Your task to perform on an android device: turn pop-ups off in chrome Image 0: 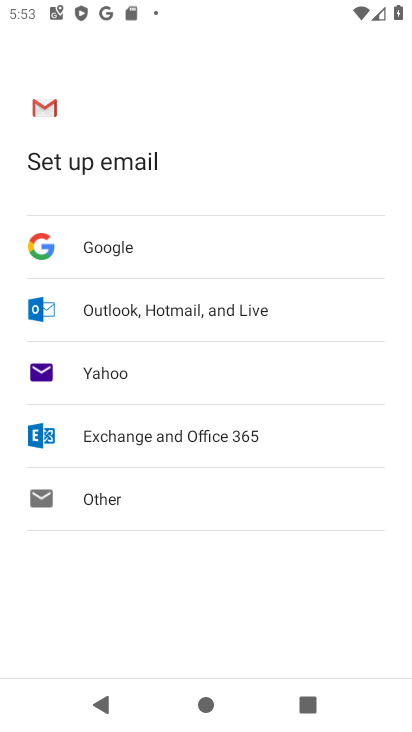
Step 0: press home button
Your task to perform on an android device: turn pop-ups off in chrome Image 1: 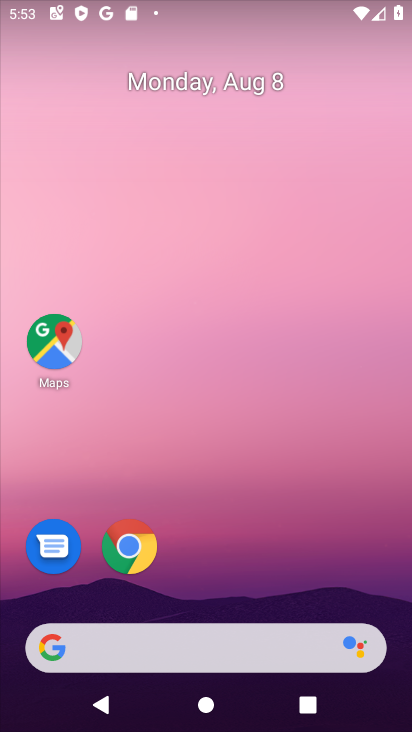
Step 1: click (124, 565)
Your task to perform on an android device: turn pop-ups off in chrome Image 2: 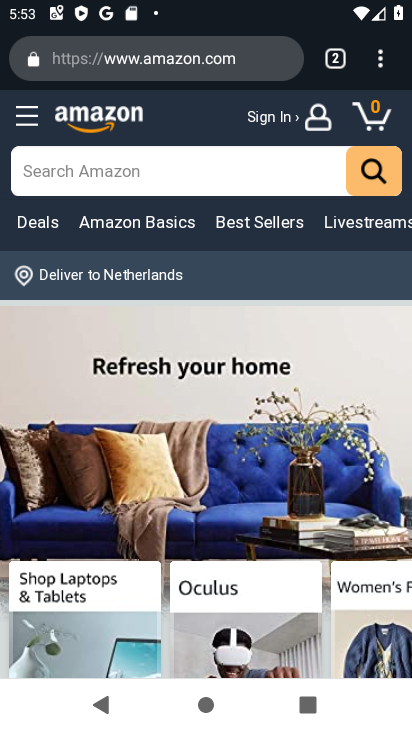
Step 2: click (374, 60)
Your task to perform on an android device: turn pop-ups off in chrome Image 3: 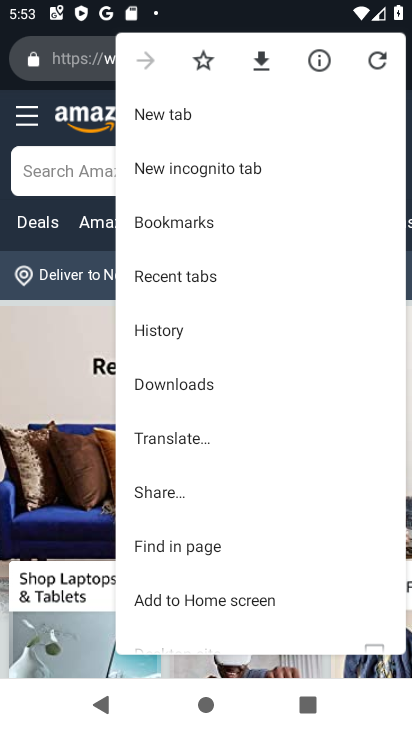
Step 3: drag from (208, 466) to (237, 258)
Your task to perform on an android device: turn pop-ups off in chrome Image 4: 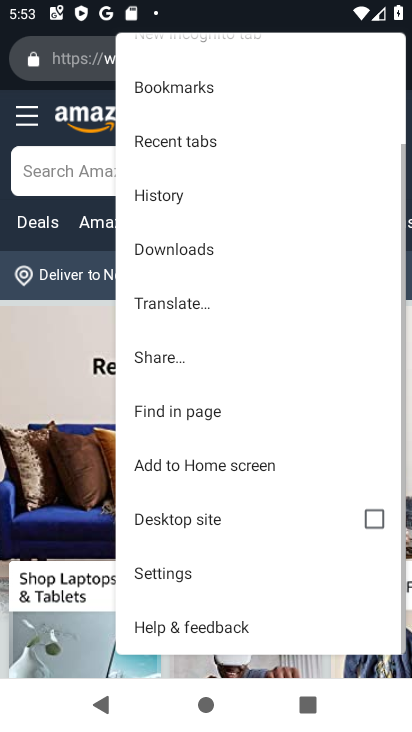
Step 4: click (168, 561)
Your task to perform on an android device: turn pop-ups off in chrome Image 5: 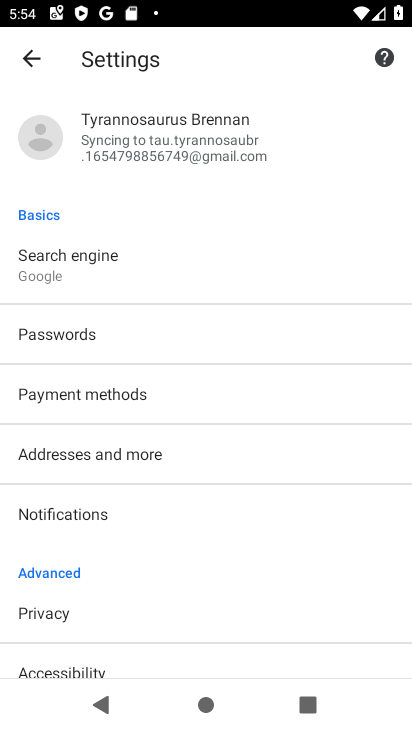
Step 5: drag from (152, 564) to (194, 232)
Your task to perform on an android device: turn pop-ups off in chrome Image 6: 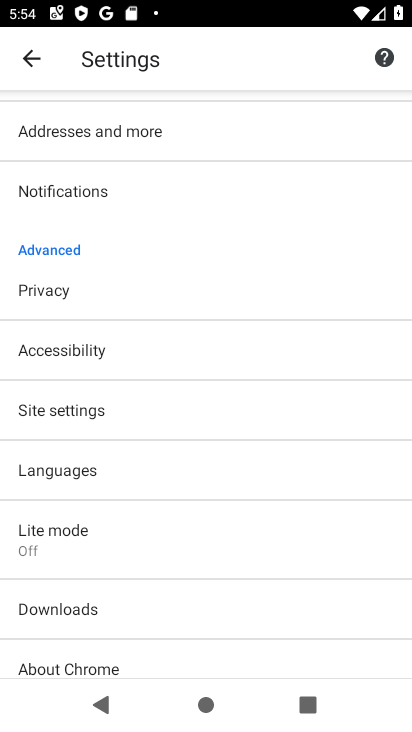
Step 6: click (138, 404)
Your task to perform on an android device: turn pop-ups off in chrome Image 7: 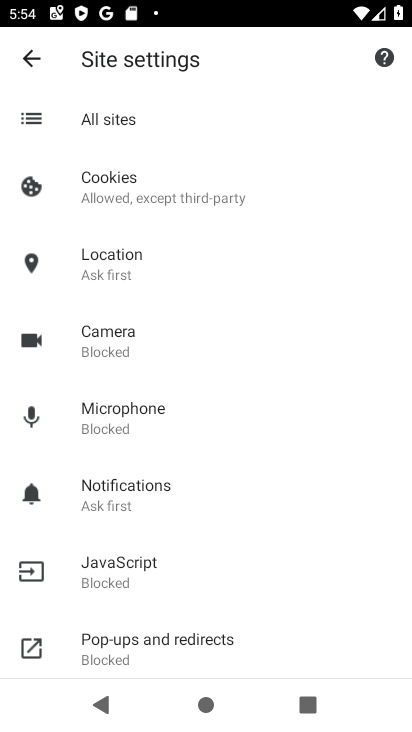
Step 7: drag from (167, 507) to (200, 207)
Your task to perform on an android device: turn pop-ups off in chrome Image 8: 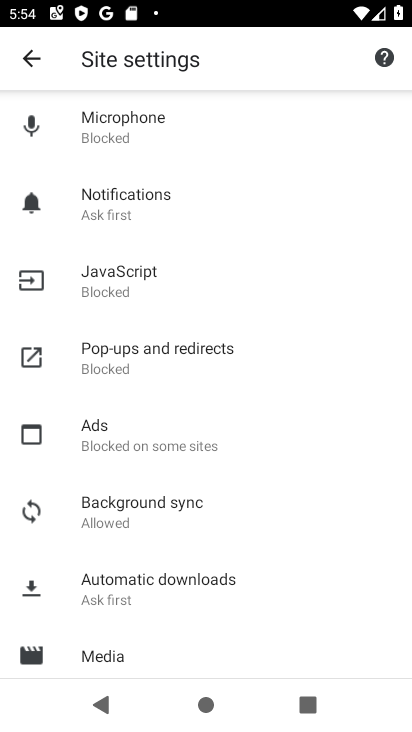
Step 8: click (193, 365)
Your task to perform on an android device: turn pop-ups off in chrome Image 9: 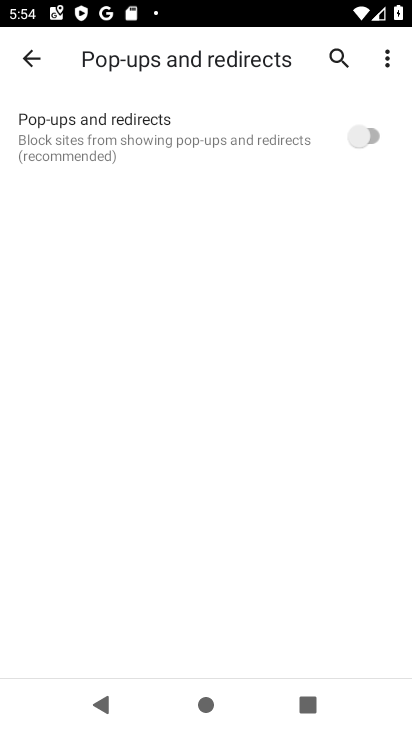
Step 9: task complete